Your task to perform on an android device: Go to Google Image 0: 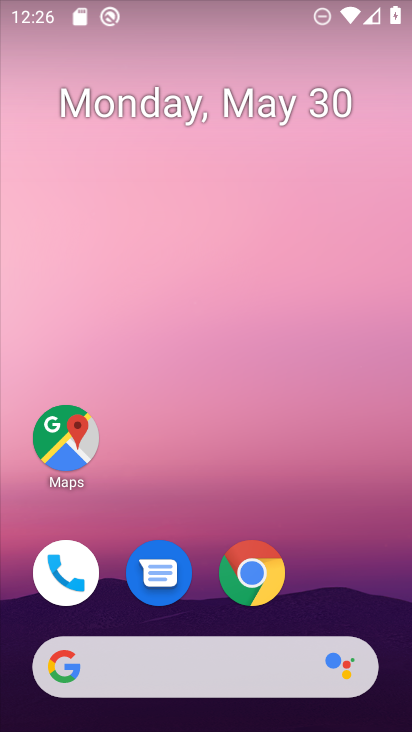
Step 0: press home button
Your task to perform on an android device: Go to Google Image 1: 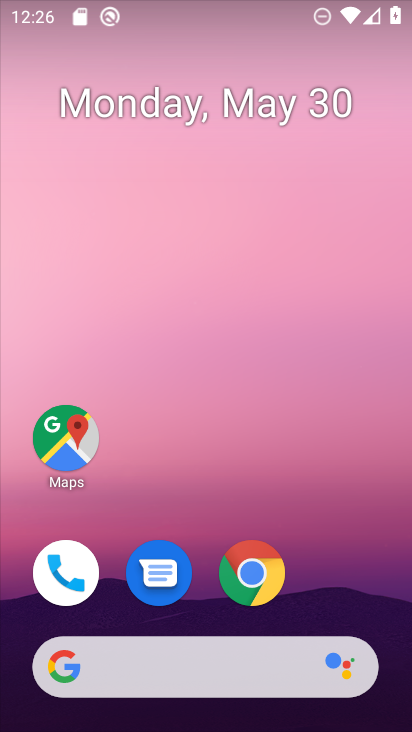
Step 1: click (65, 663)
Your task to perform on an android device: Go to Google Image 2: 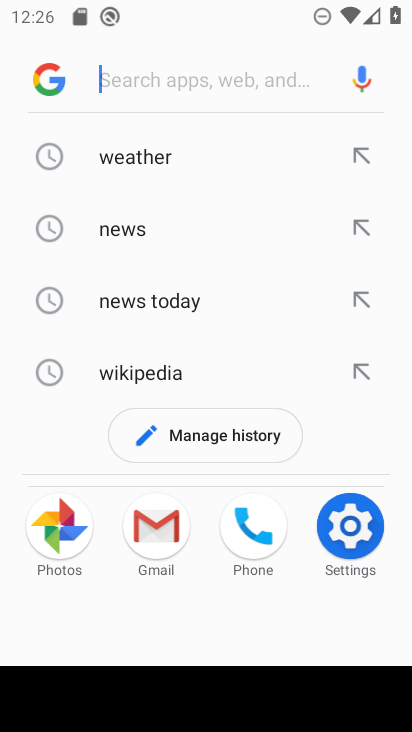
Step 2: task complete